Your task to perform on an android device: Open maps Image 0: 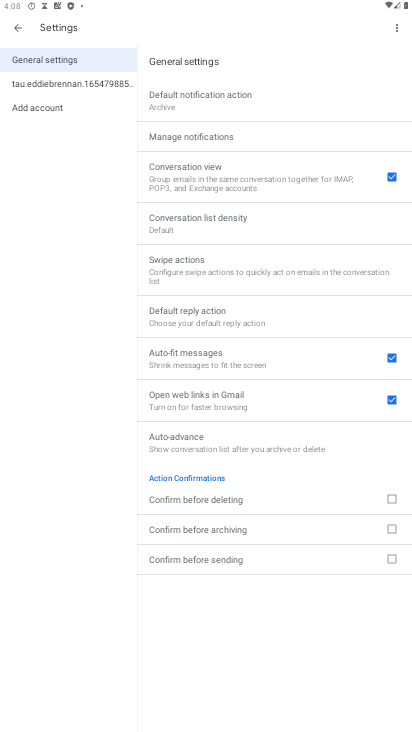
Step 0: press home button
Your task to perform on an android device: Open maps Image 1: 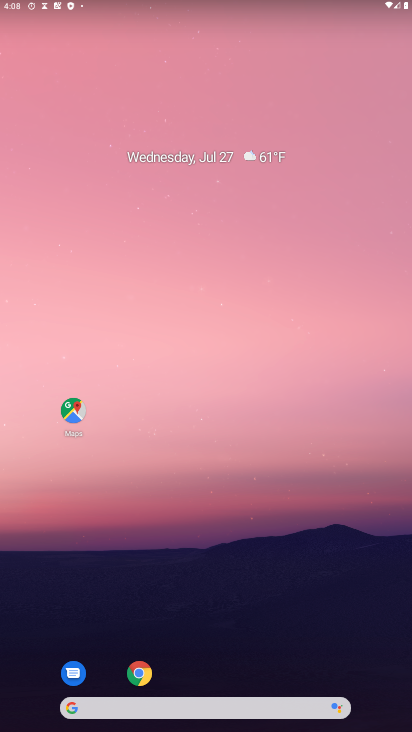
Step 1: drag from (136, 334) to (178, 229)
Your task to perform on an android device: Open maps Image 2: 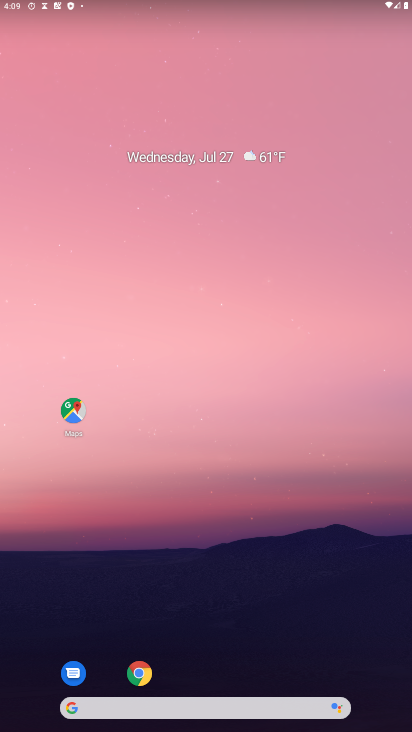
Step 2: click (63, 398)
Your task to perform on an android device: Open maps Image 3: 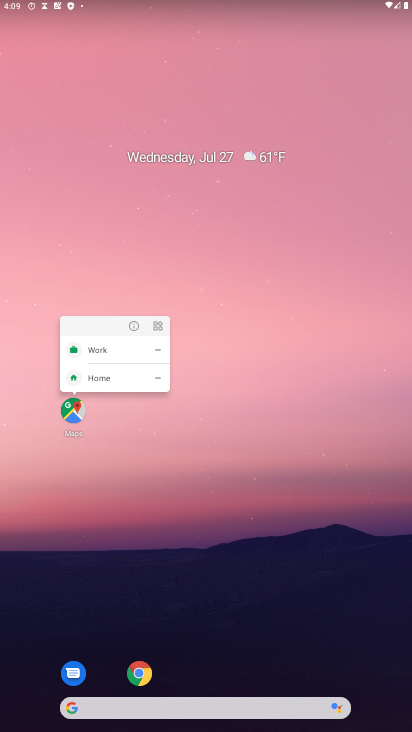
Step 3: click (74, 411)
Your task to perform on an android device: Open maps Image 4: 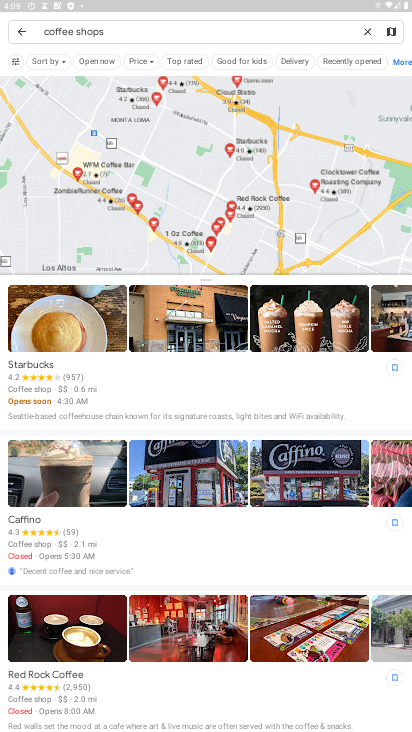
Step 4: click (16, 26)
Your task to perform on an android device: Open maps Image 5: 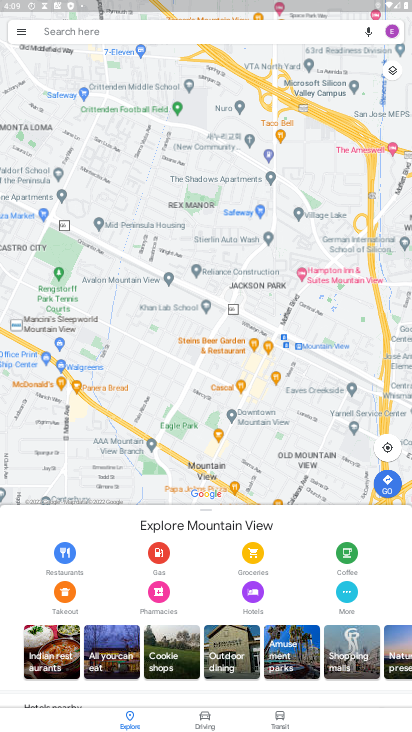
Step 5: task complete